Your task to perform on an android device: Open the calendar app, open the side menu, and click the "Day" option Image 0: 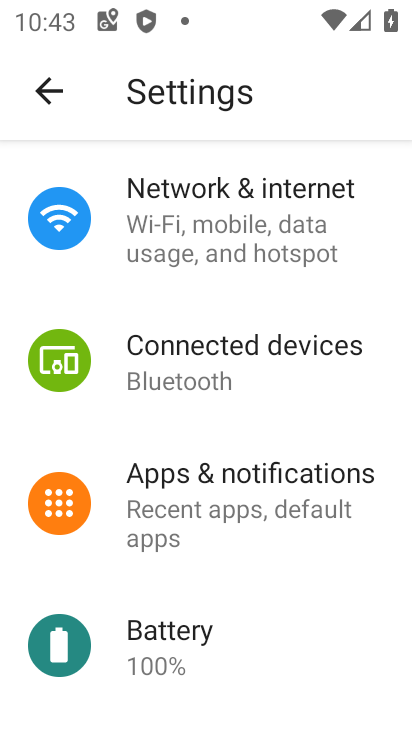
Step 0: press home button
Your task to perform on an android device: Open the calendar app, open the side menu, and click the "Day" option Image 1: 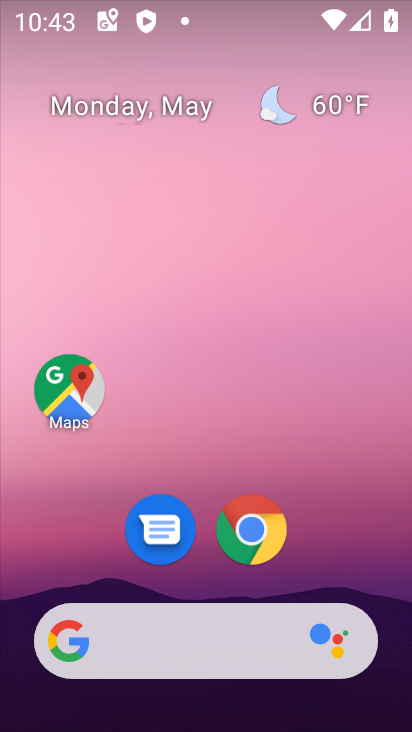
Step 1: drag from (320, 497) to (222, 11)
Your task to perform on an android device: Open the calendar app, open the side menu, and click the "Day" option Image 2: 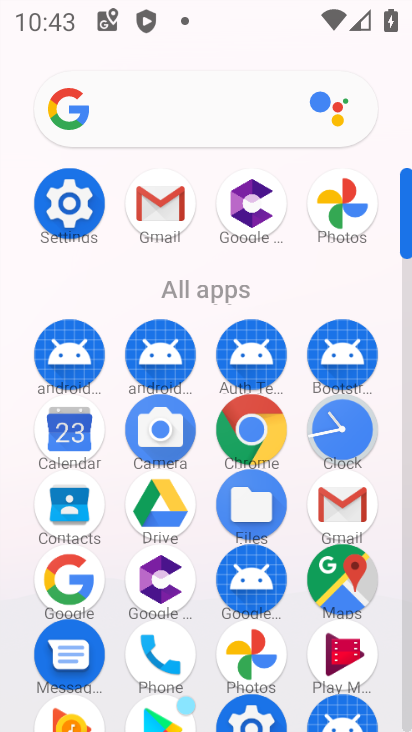
Step 2: click (53, 431)
Your task to perform on an android device: Open the calendar app, open the side menu, and click the "Day" option Image 3: 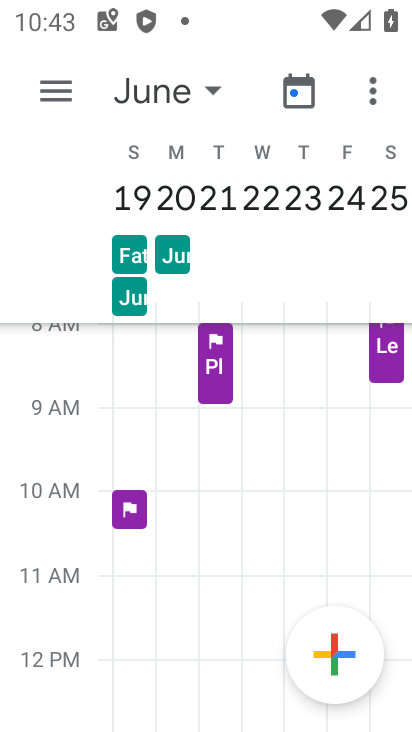
Step 3: click (45, 88)
Your task to perform on an android device: Open the calendar app, open the side menu, and click the "Day" option Image 4: 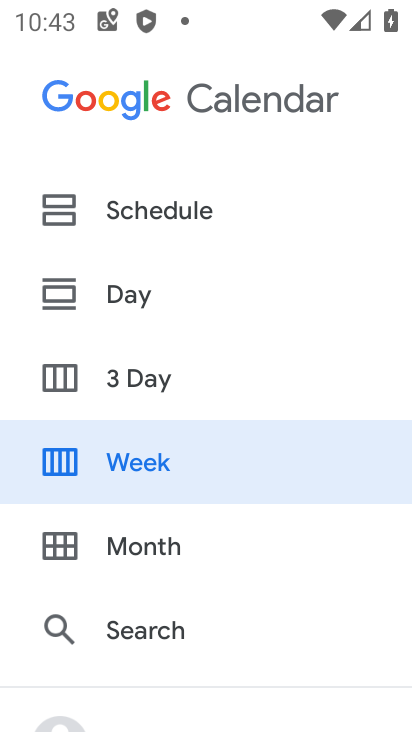
Step 4: click (130, 291)
Your task to perform on an android device: Open the calendar app, open the side menu, and click the "Day" option Image 5: 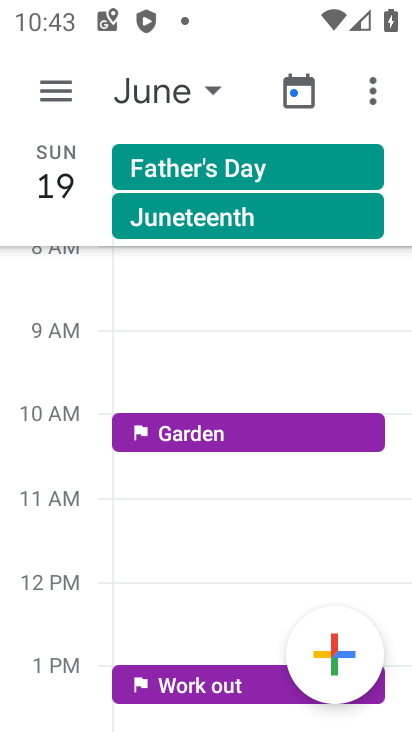
Step 5: task complete